Your task to perform on an android device: When is my next appointment? Image 0: 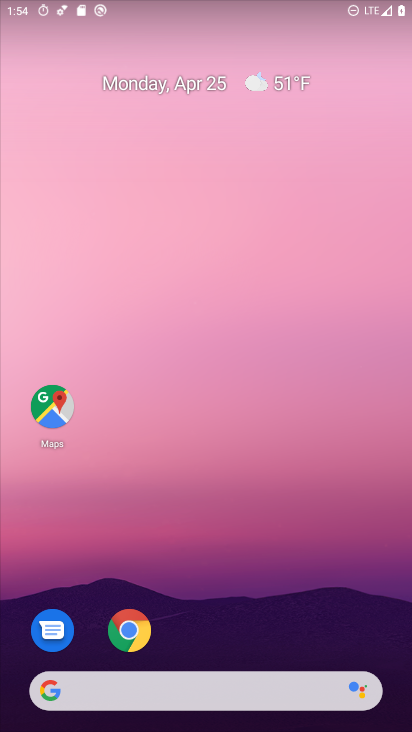
Step 0: drag from (192, 631) to (224, 320)
Your task to perform on an android device: When is my next appointment? Image 1: 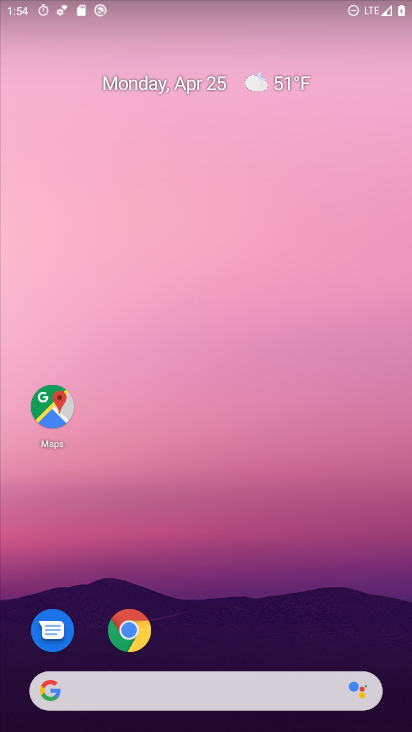
Step 1: drag from (189, 634) to (268, 168)
Your task to perform on an android device: When is my next appointment? Image 2: 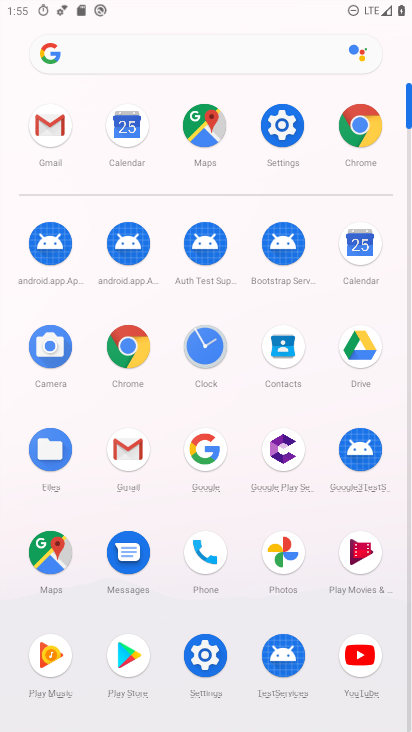
Step 2: click (355, 254)
Your task to perform on an android device: When is my next appointment? Image 3: 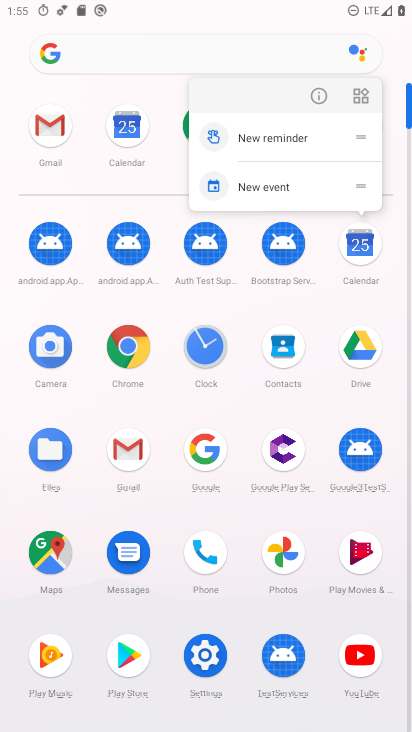
Step 3: click (313, 89)
Your task to perform on an android device: When is my next appointment? Image 4: 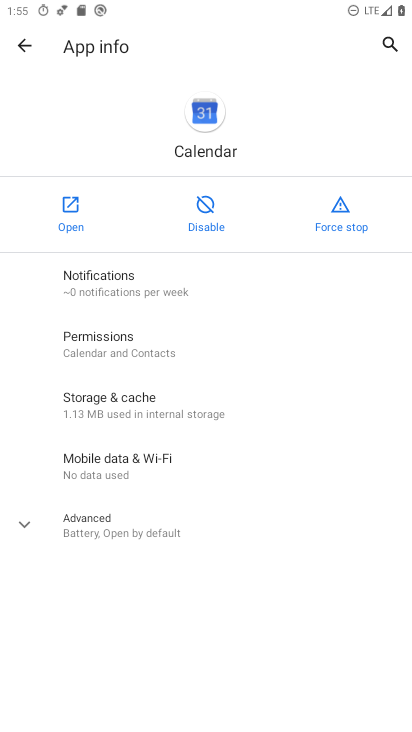
Step 4: click (67, 210)
Your task to perform on an android device: When is my next appointment? Image 5: 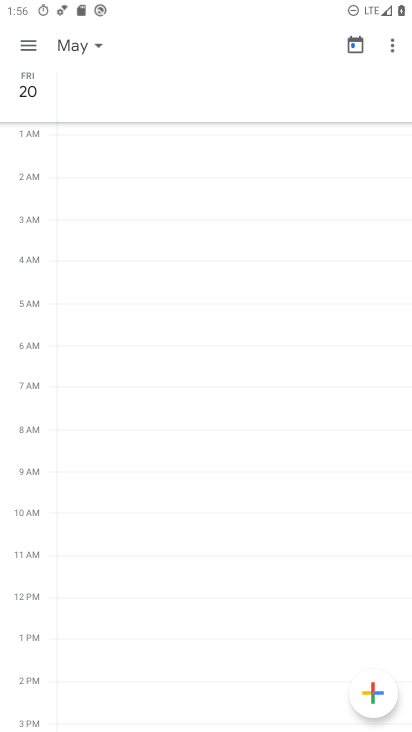
Step 5: drag from (217, 644) to (239, 234)
Your task to perform on an android device: When is my next appointment? Image 6: 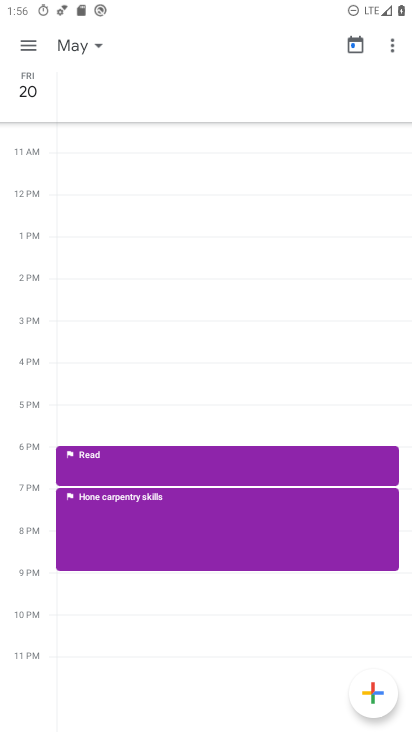
Step 6: drag from (227, 441) to (244, 115)
Your task to perform on an android device: When is my next appointment? Image 7: 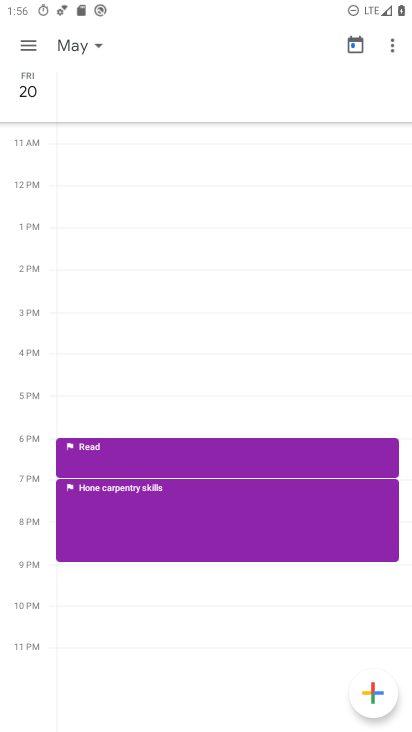
Step 7: click (51, 51)
Your task to perform on an android device: When is my next appointment? Image 8: 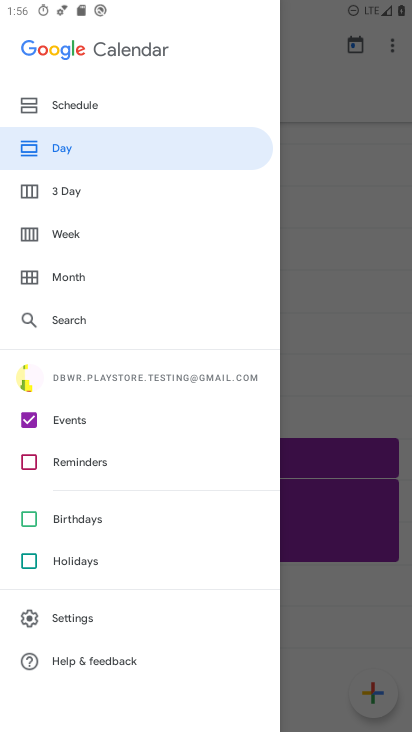
Step 8: click (345, 273)
Your task to perform on an android device: When is my next appointment? Image 9: 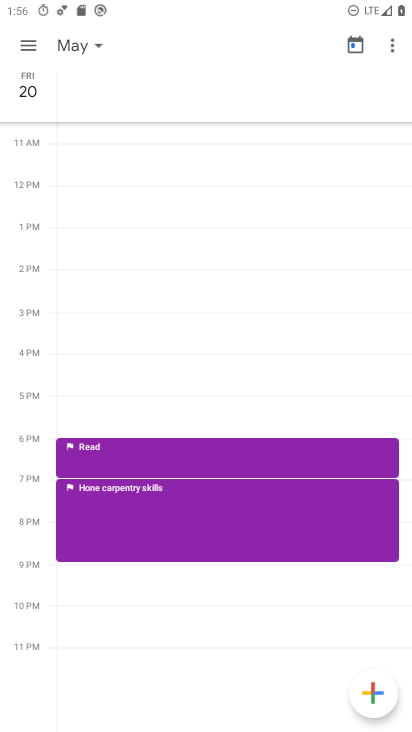
Step 9: drag from (331, 519) to (355, 250)
Your task to perform on an android device: When is my next appointment? Image 10: 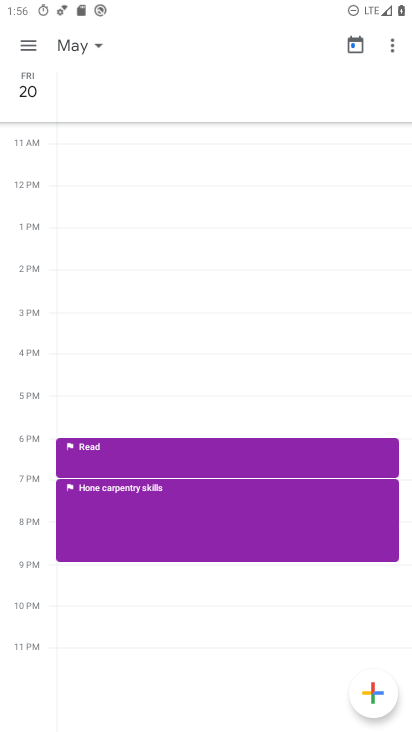
Step 10: click (70, 34)
Your task to perform on an android device: When is my next appointment? Image 11: 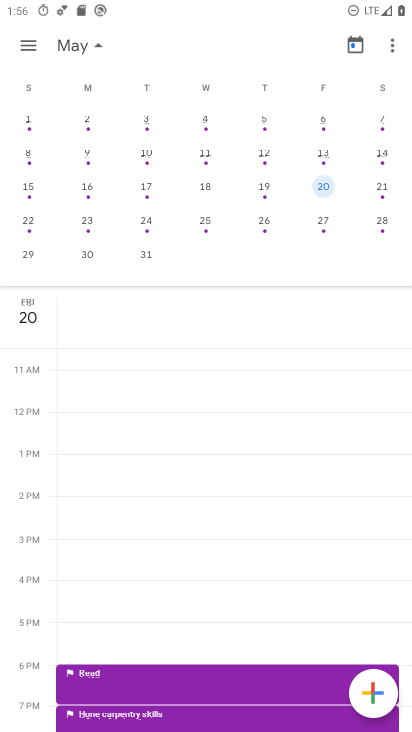
Step 11: drag from (111, 291) to (408, 345)
Your task to perform on an android device: When is my next appointment? Image 12: 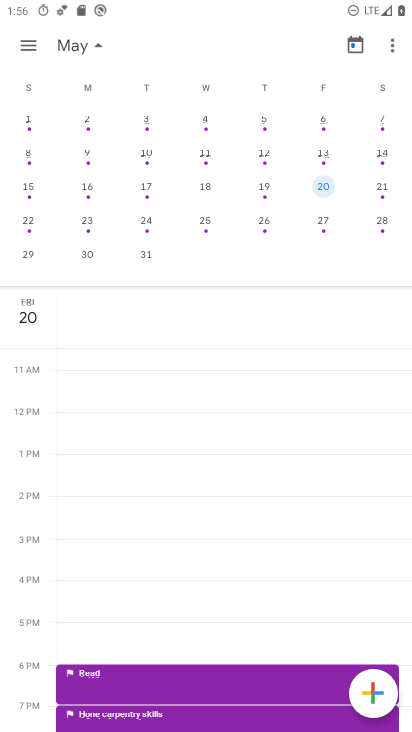
Step 12: drag from (62, 136) to (397, 159)
Your task to perform on an android device: When is my next appointment? Image 13: 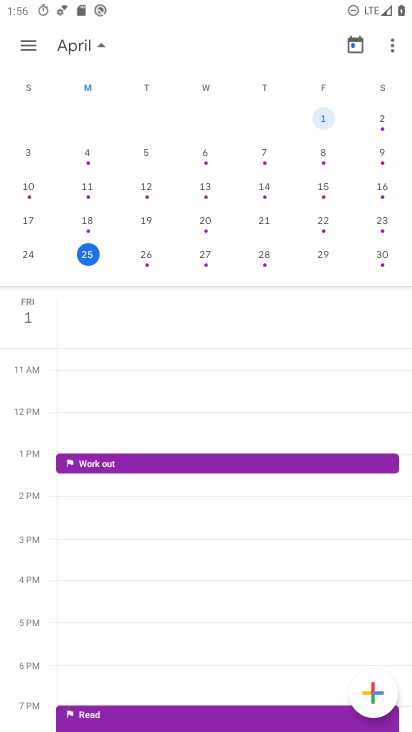
Step 13: click (211, 258)
Your task to perform on an android device: When is my next appointment? Image 14: 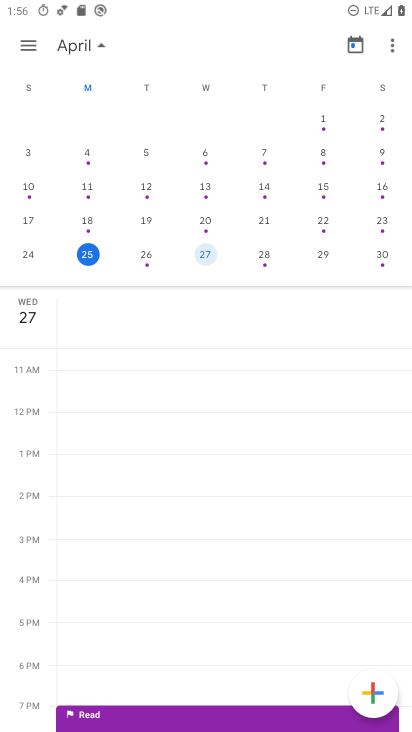
Step 14: task complete